Your task to perform on an android device: Open settings Image 0: 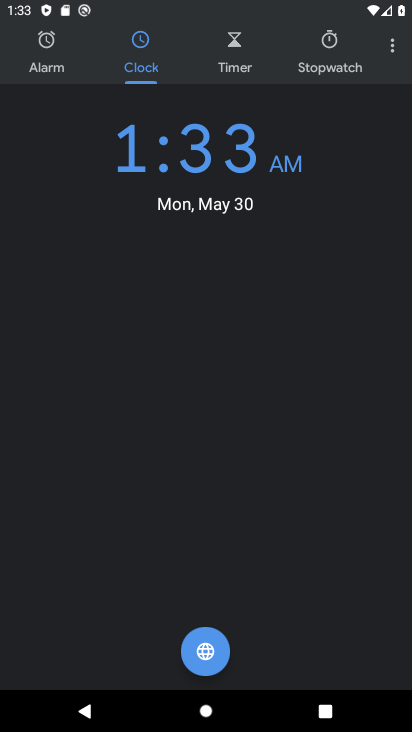
Step 0: press home button
Your task to perform on an android device: Open settings Image 1: 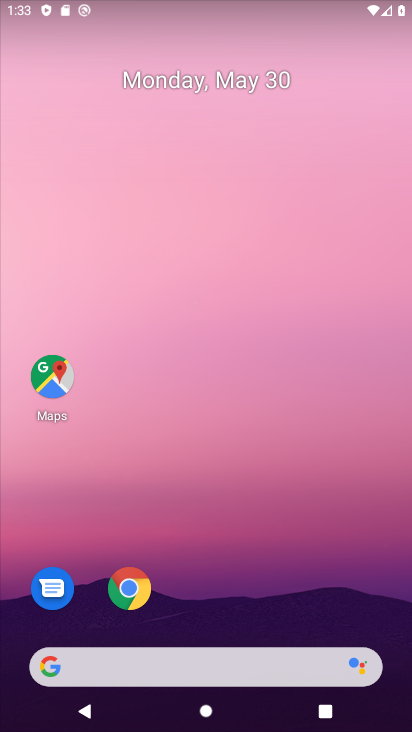
Step 1: drag from (99, 664) to (234, 223)
Your task to perform on an android device: Open settings Image 2: 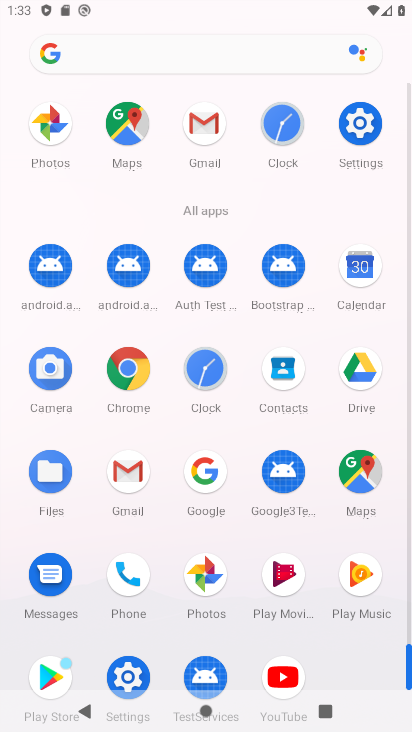
Step 2: click (147, 681)
Your task to perform on an android device: Open settings Image 3: 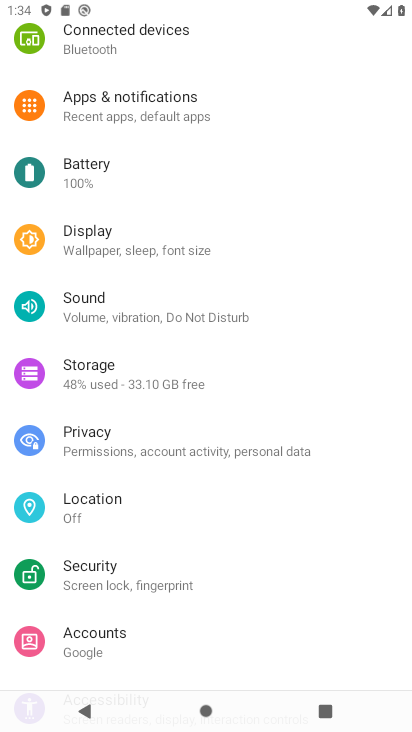
Step 3: task complete